Your task to perform on an android device: check battery use Image 0: 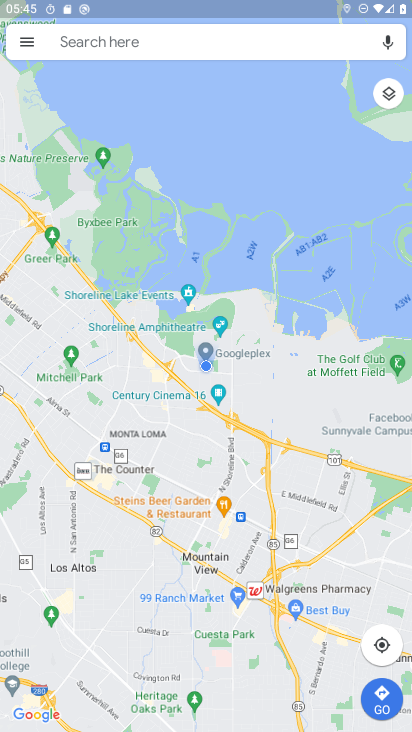
Step 0: press home button
Your task to perform on an android device: check battery use Image 1: 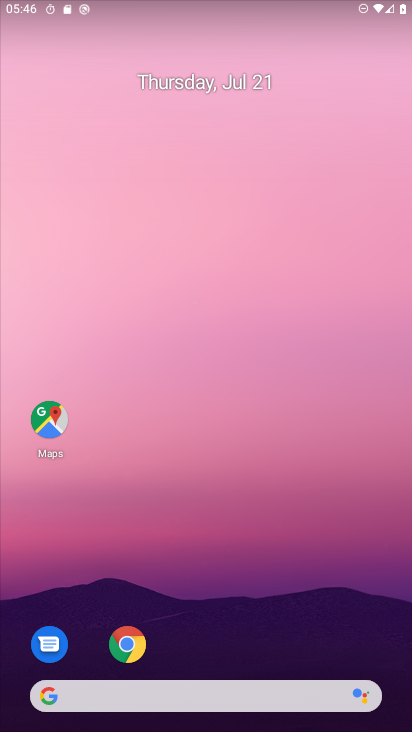
Step 1: drag from (182, 472) to (196, 207)
Your task to perform on an android device: check battery use Image 2: 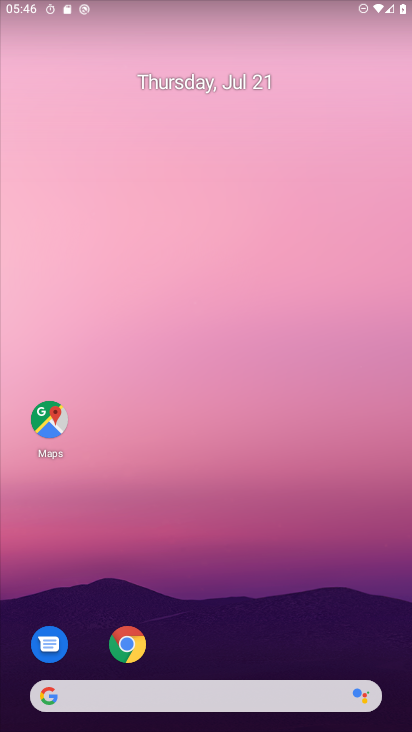
Step 2: drag from (192, 636) to (192, 17)
Your task to perform on an android device: check battery use Image 3: 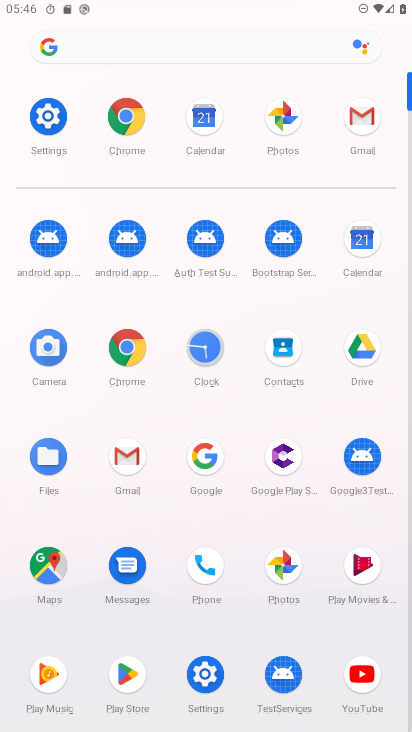
Step 3: click (38, 120)
Your task to perform on an android device: check battery use Image 4: 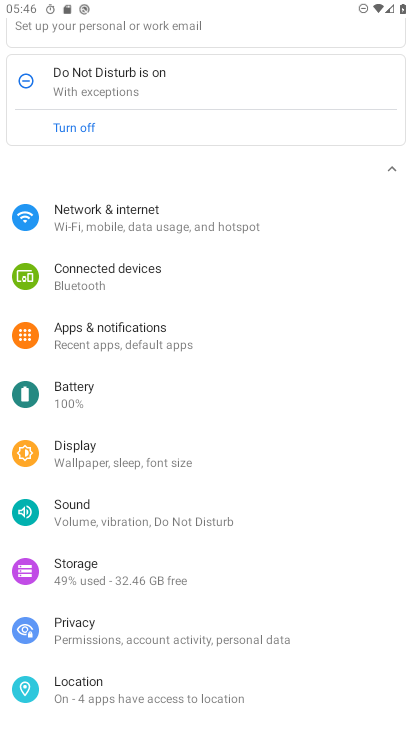
Step 4: click (84, 404)
Your task to perform on an android device: check battery use Image 5: 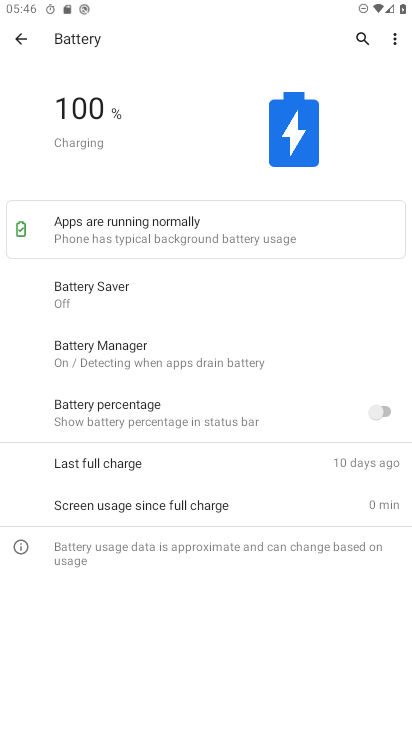
Step 5: task complete